Your task to perform on an android device: turn on data saver in the chrome app Image 0: 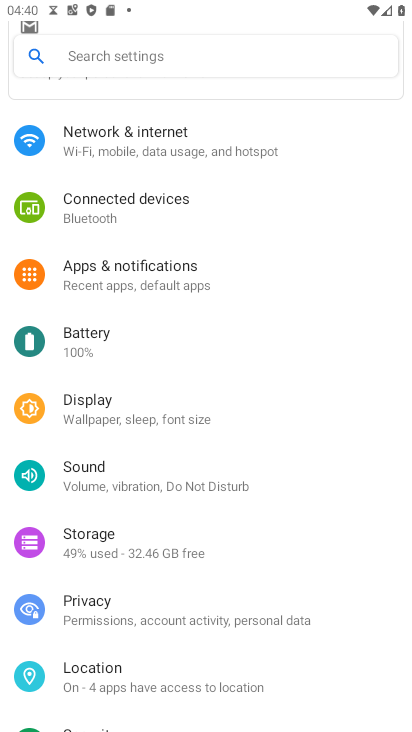
Step 0: press home button
Your task to perform on an android device: turn on data saver in the chrome app Image 1: 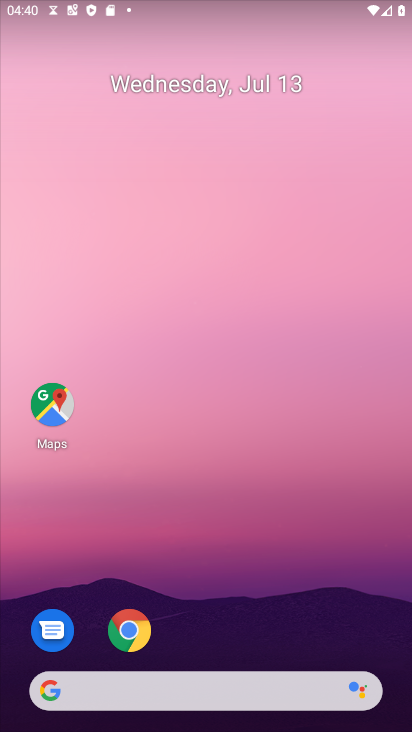
Step 1: drag from (238, 635) to (350, 2)
Your task to perform on an android device: turn on data saver in the chrome app Image 2: 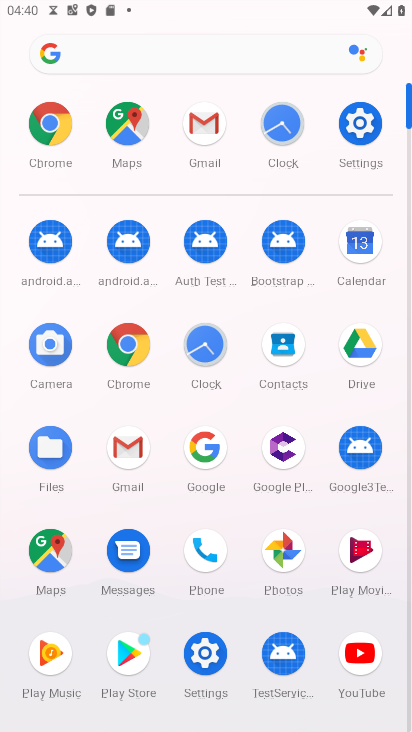
Step 2: click (125, 370)
Your task to perform on an android device: turn on data saver in the chrome app Image 3: 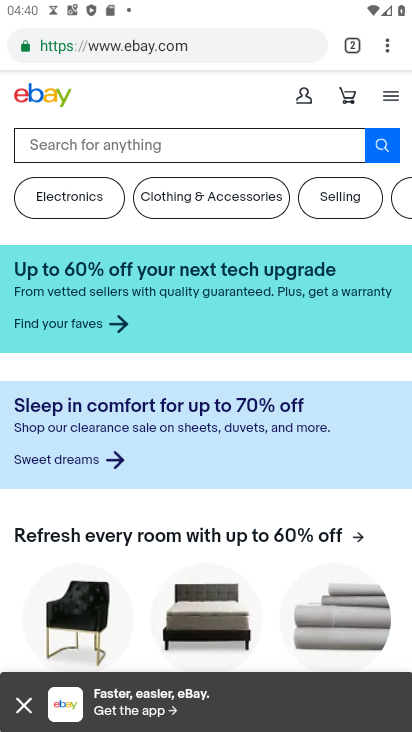
Step 3: drag from (389, 48) to (218, 547)
Your task to perform on an android device: turn on data saver in the chrome app Image 4: 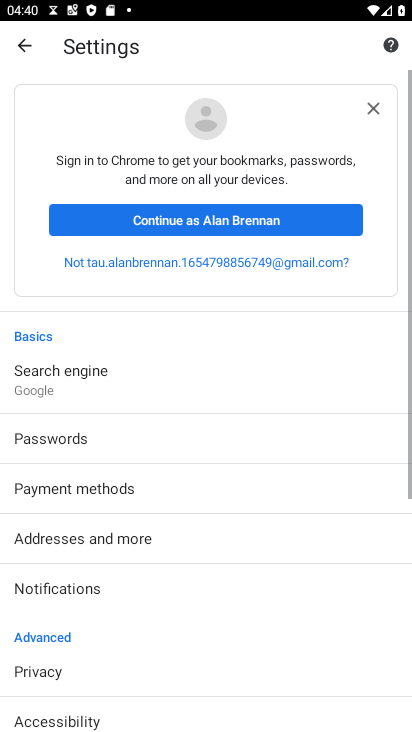
Step 4: drag from (129, 646) to (140, 175)
Your task to perform on an android device: turn on data saver in the chrome app Image 5: 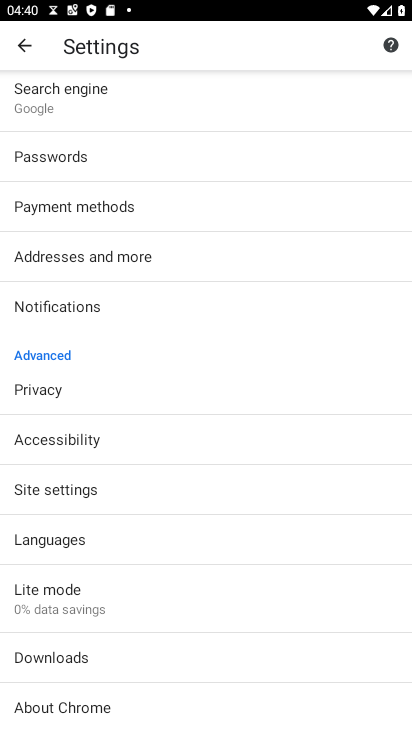
Step 5: click (58, 598)
Your task to perform on an android device: turn on data saver in the chrome app Image 6: 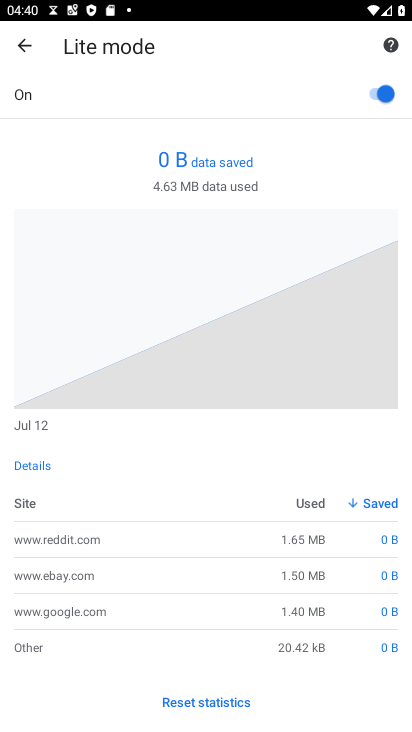
Step 6: task complete